Your task to perform on an android device: find which apps use the phone's location Image 0: 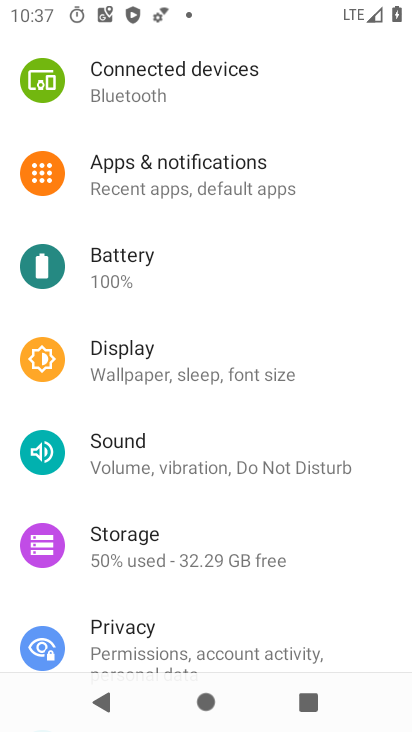
Step 0: drag from (233, 520) to (294, 141)
Your task to perform on an android device: find which apps use the phone's location Image 1: 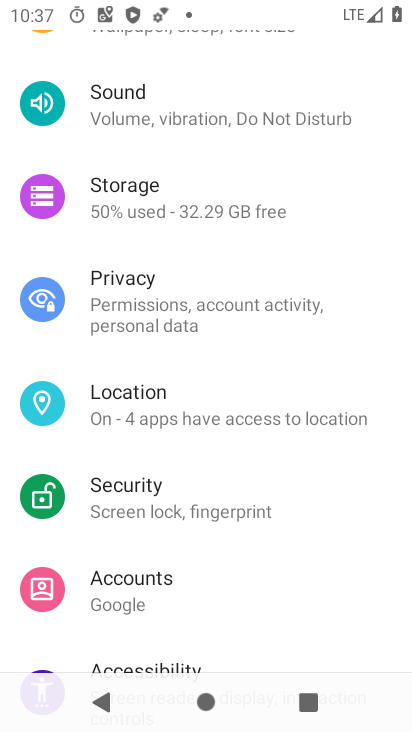
Step 1: click (192, 399)
Your task to perform on an android device: find which apps use the phone's location Image 2: 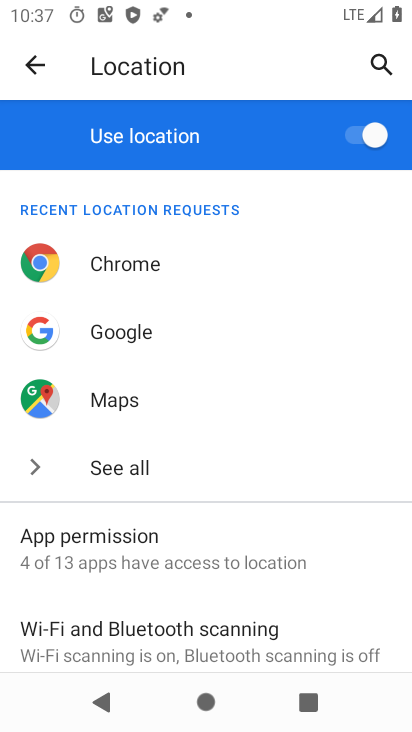
Step 2: click (147, 538)
Your task to perform on an android device: find which apps use the phone's location Image 3: 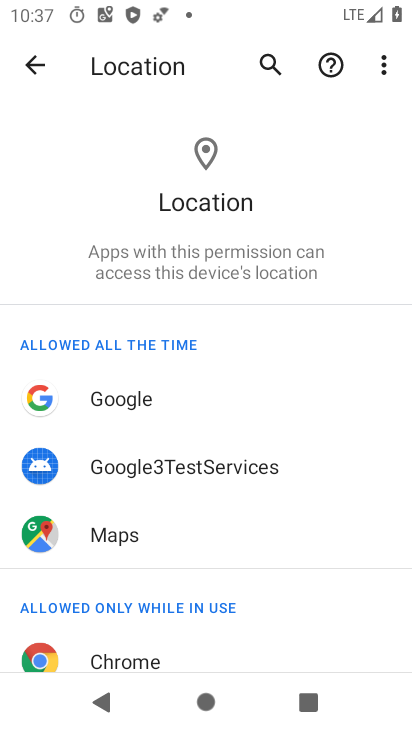
Step 3: task complete